Your task to perform on an android device: Is it going to rain tomorrow? Image 0: 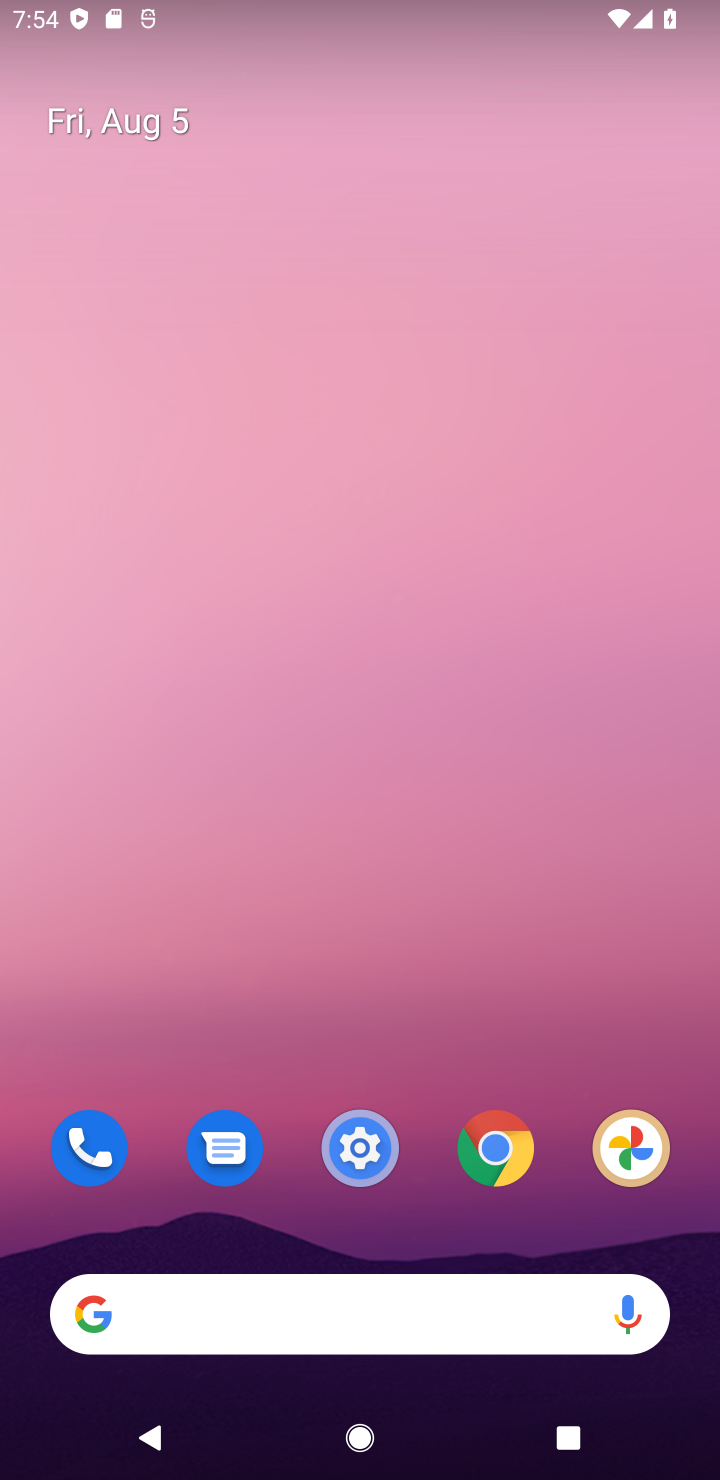
Step 0: click (436, 1294)
Your task to perform on an android device: Is it going to rain tomorrow? Image 1: 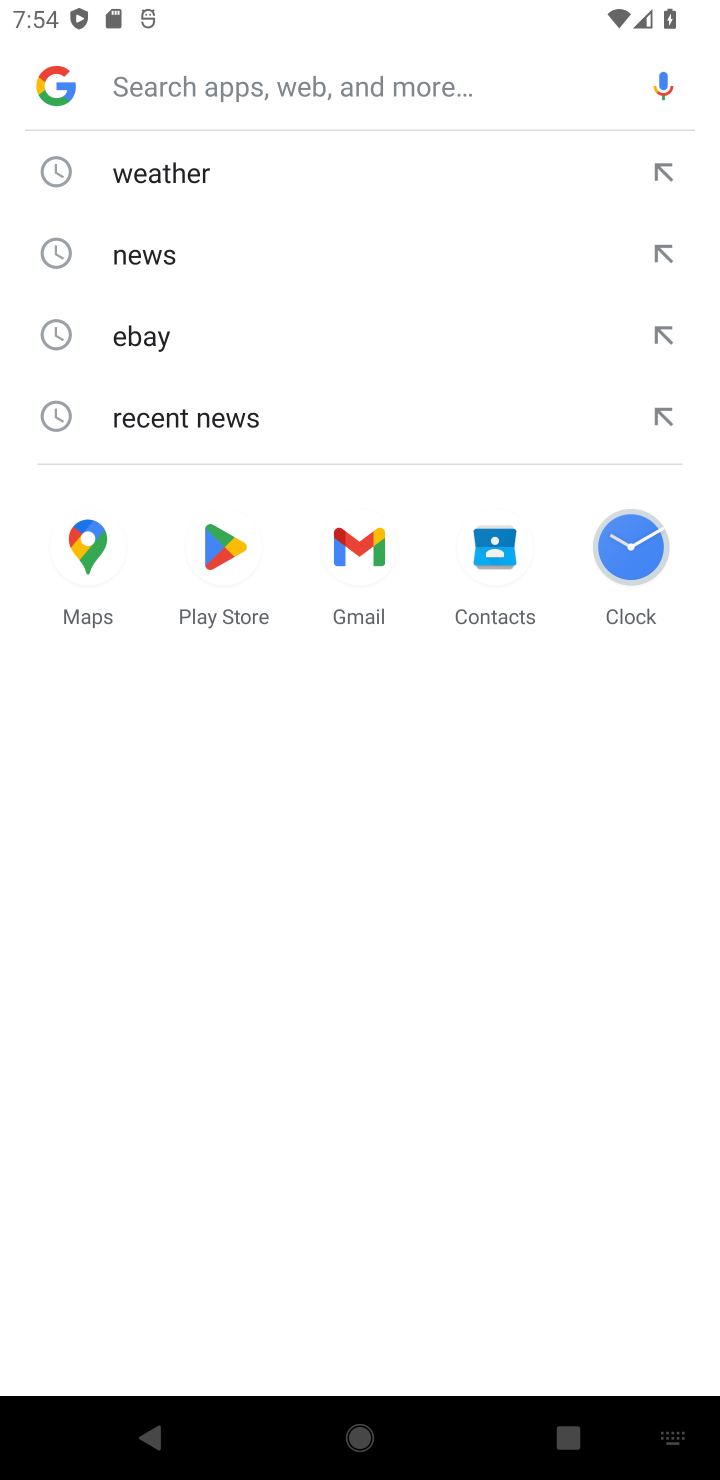
Step 1: click (298, 164)
Your task to perform on an android device: Is it going to rain tomorrow? Image 2: 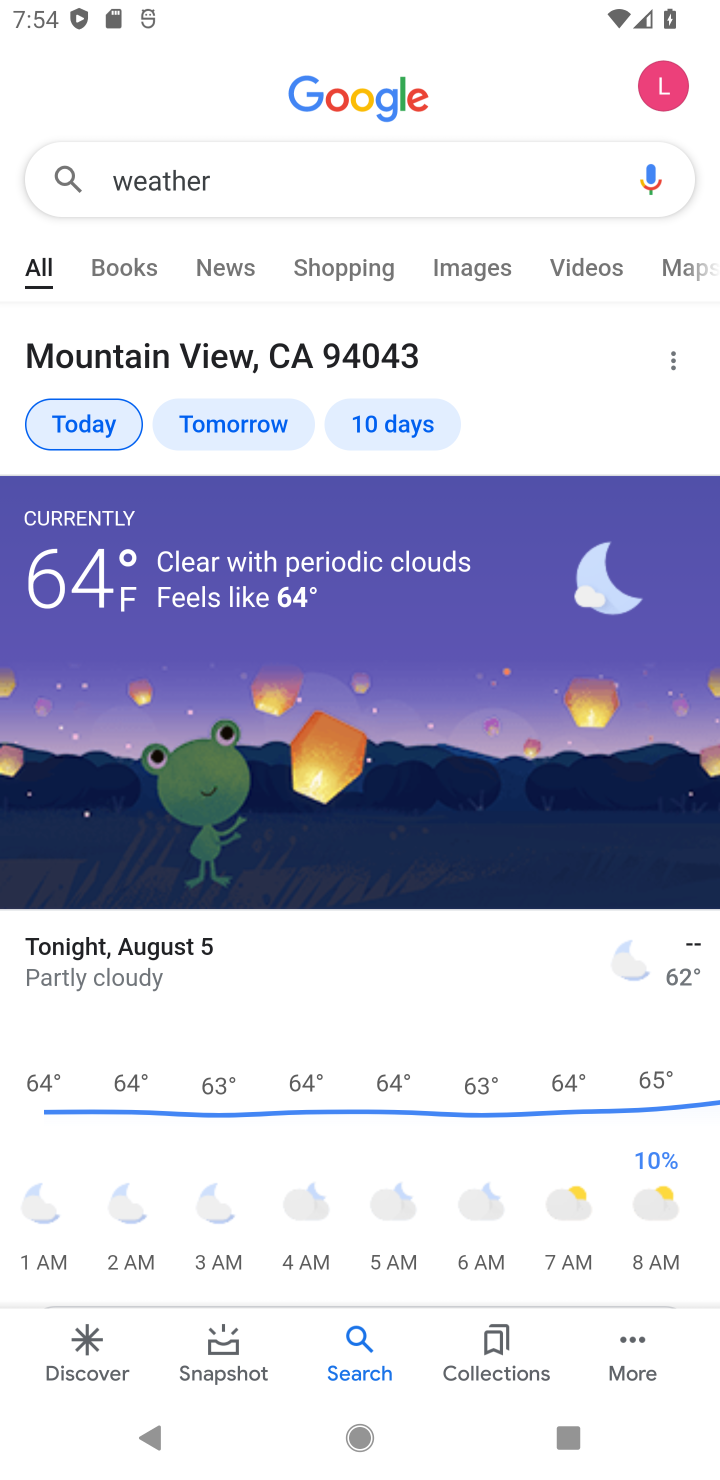
Step 2: click (298, 164)
Your task to perform on an android device: Is it going to rain tomorrow? Image 3: 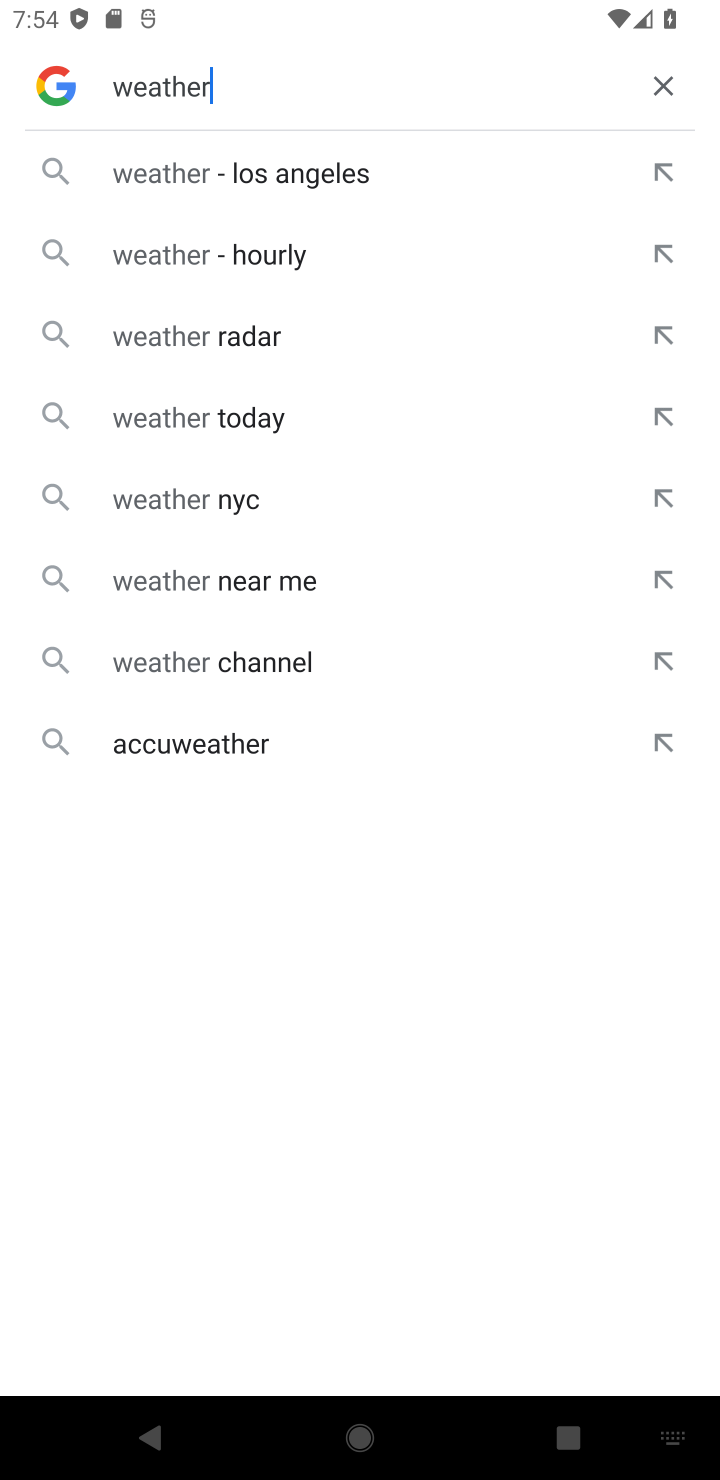
Step 3: click (655, 101)
Your task to perform on an android device: Is it going to rain tomorrow? Image 4: 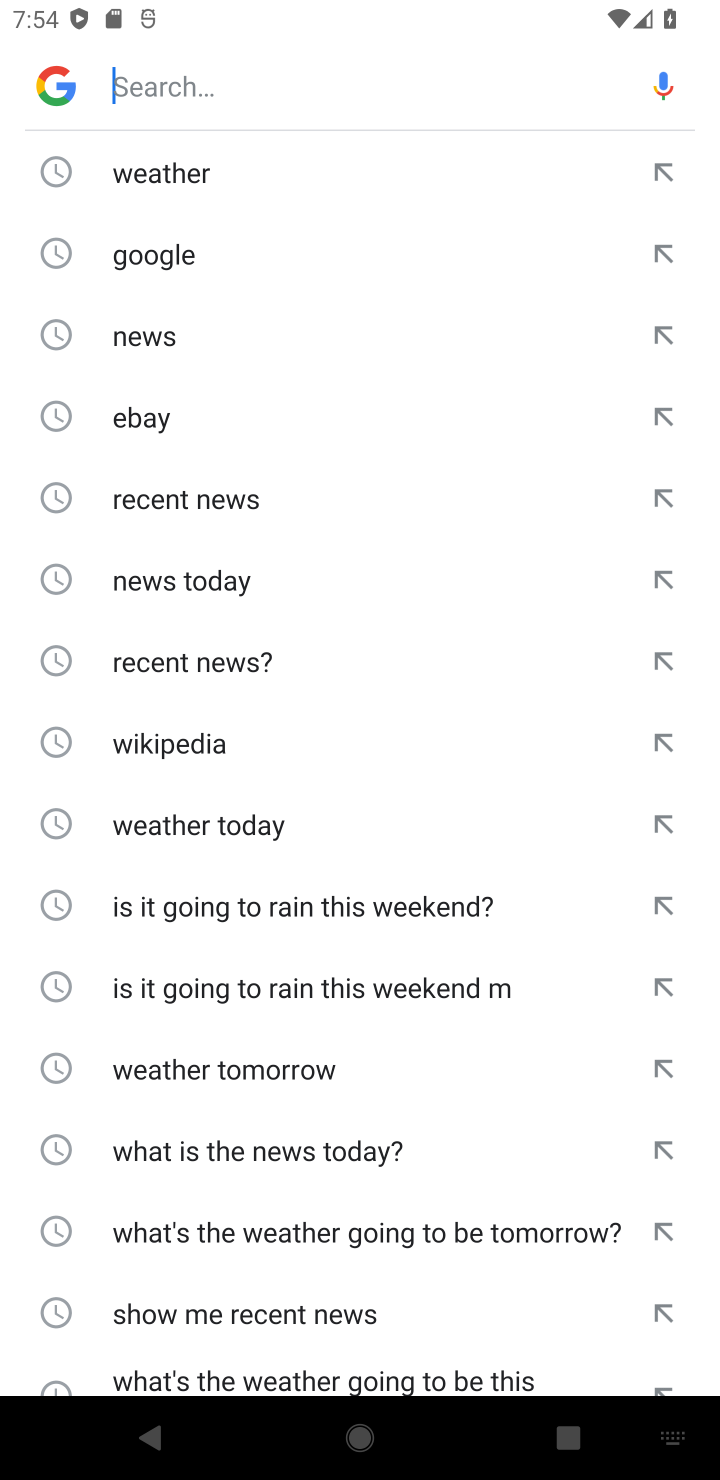
Step 4: task complete